Your task to perform on an android device: Go to battery settings Image 0: 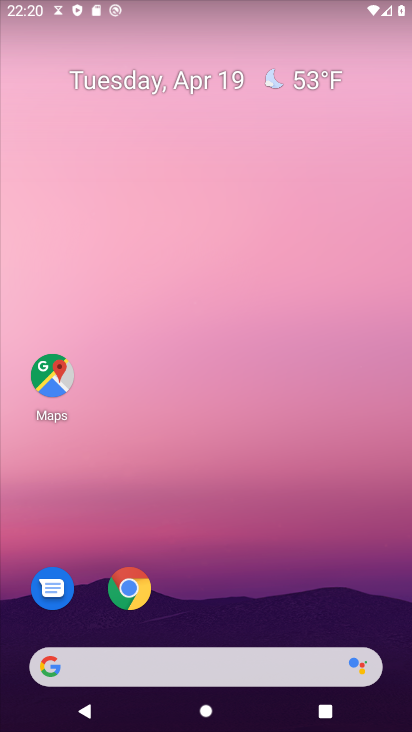
Step 0: drag from (238, 559) to (287, 115)
Your task to perform on an android device: Go to battery settings Image 1: 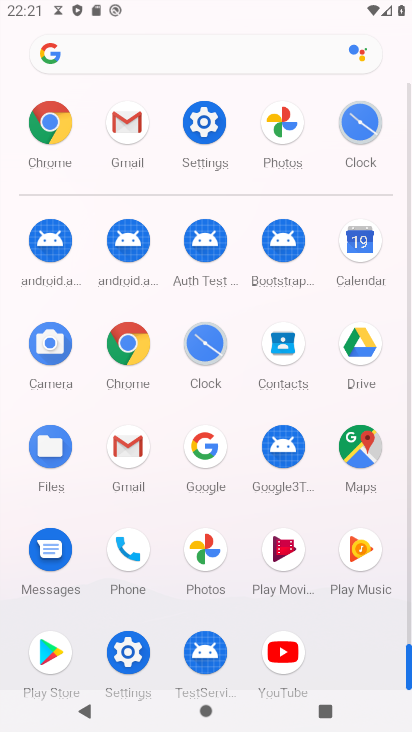
Step 1: click (204, 122)
Your task to perform on an android device: Go to battery settings Image 2: 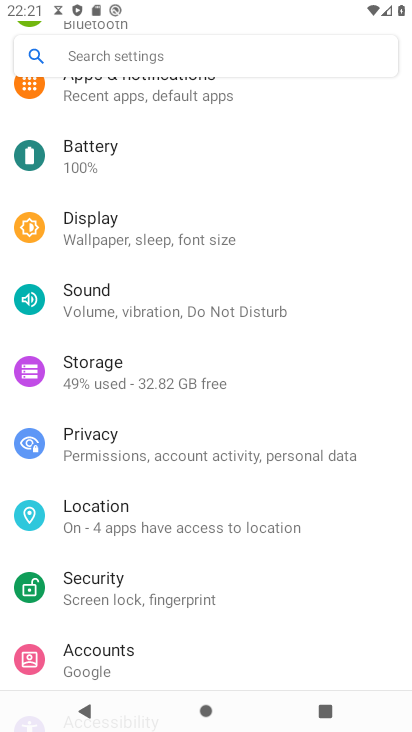
Step 2: click (107, 150)
Your task to perform on an android device: Go to battery settings Image 3: 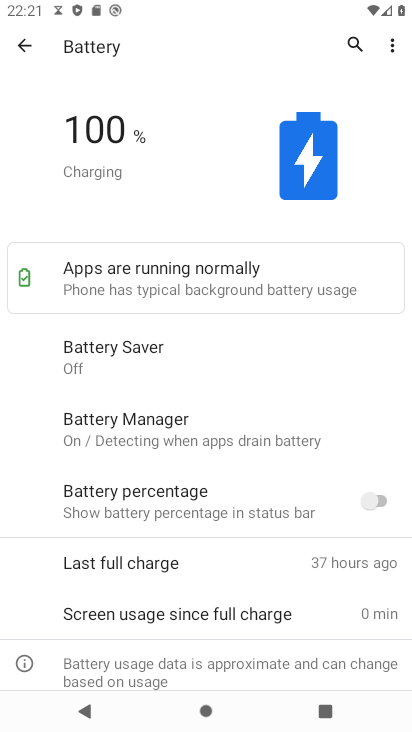
Step 3: task complete